Your task to perform on an android device: Go to Wikipedia Image 0: 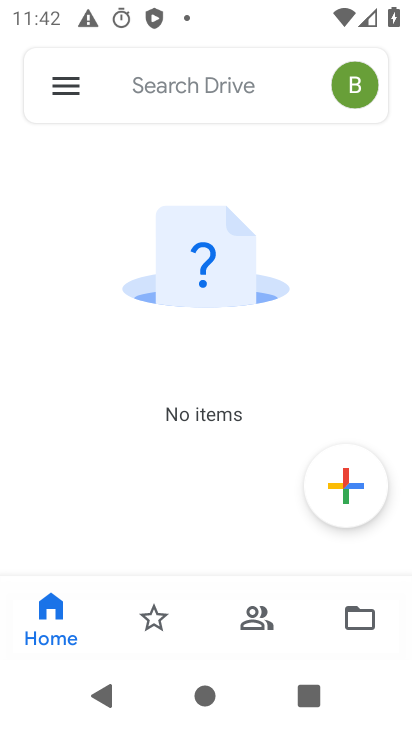
Step 0: press home button
Your task to perform on an android device: Go to Wikipedia Image 1: 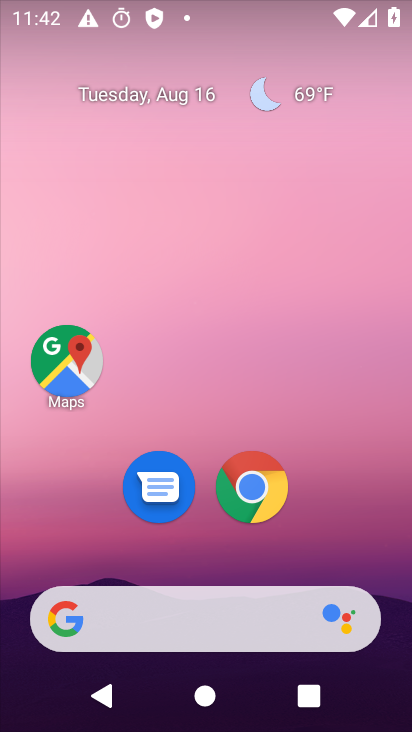
Step 1: click (263, 485)
Your task to perform on an android device: Go to Wikipedia Image 2: 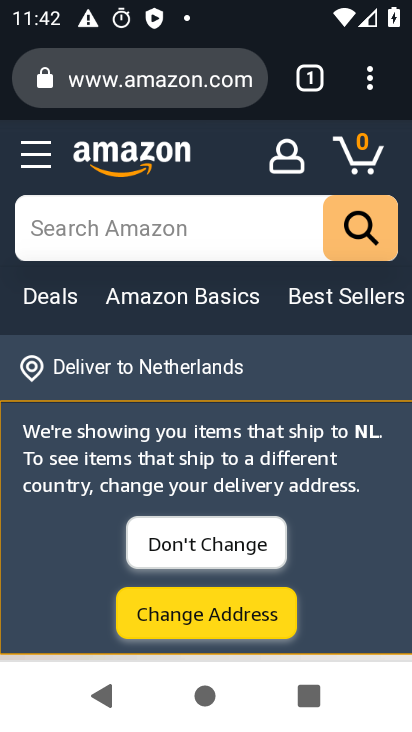
Step 2: click (308, 83)
Your task to perform on an android device: Go to Wikipedia Image 3: 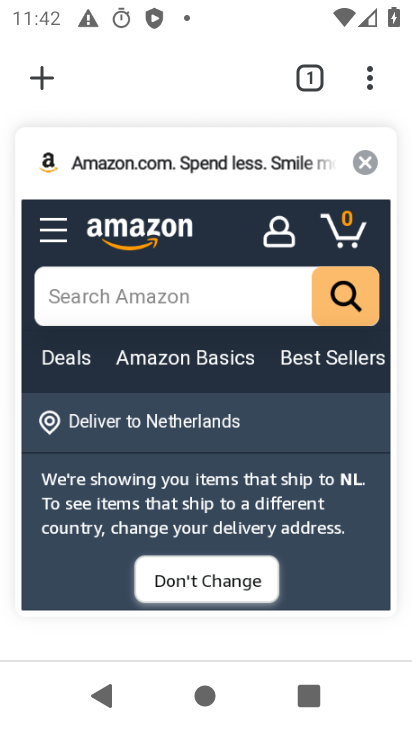
Step 3: click (376, 160)
Your task to perform on an android device: Go to Wikipedia Image 4: 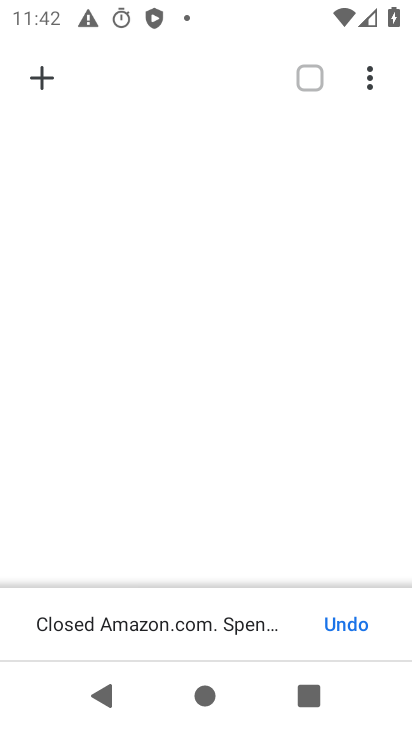
Step 4: click (31, 79)
Your task to perform on an android device: Go to Wikipedia Image 5: 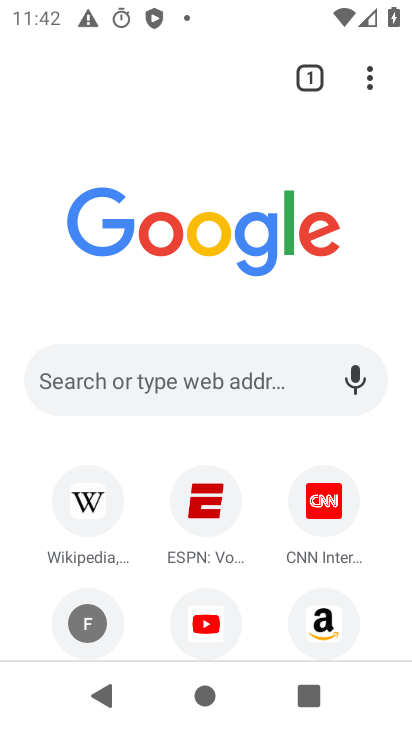
Step 5: click (69, 509)
Your task to perform on an android device: Go to Wikipedia Image 6: 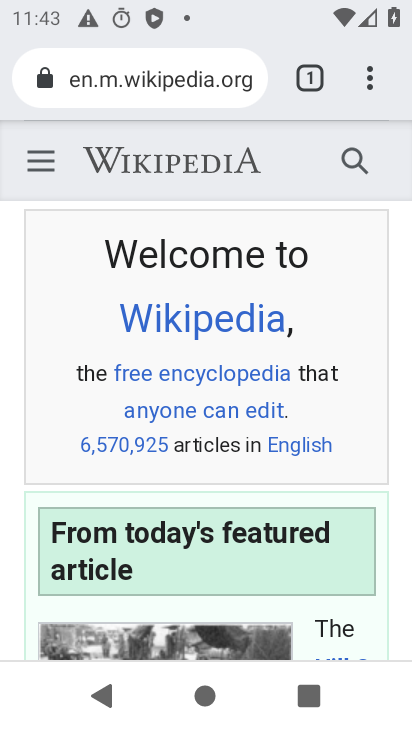
Step 6: task complete